Your task to perform on an android device: Is it going to rain tomorrow? Image 0: 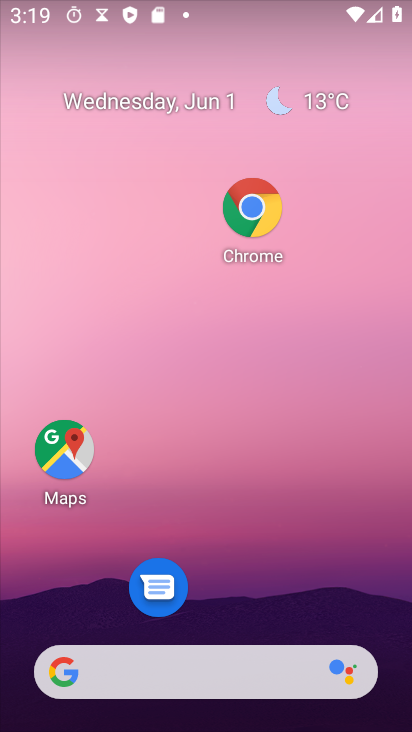
Step 0: drag from (272, 702) to (199, 179)
Your task to perform on an android device: Is it going to rain tomorrow? Image 1: 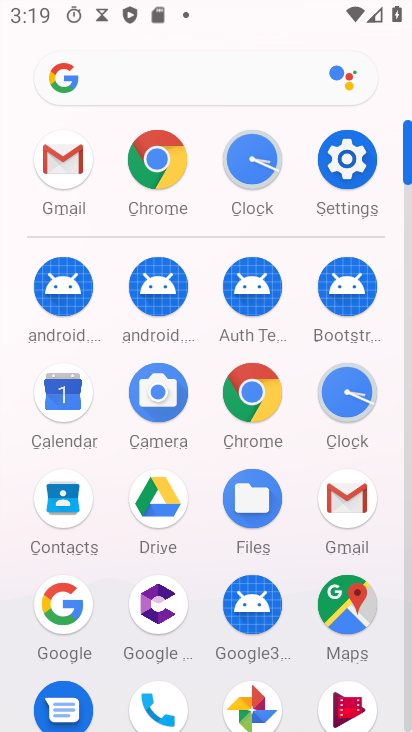
Step 1: press back button
Your task to perform on an android device: Is it going to rain tomorrow? Image 2: 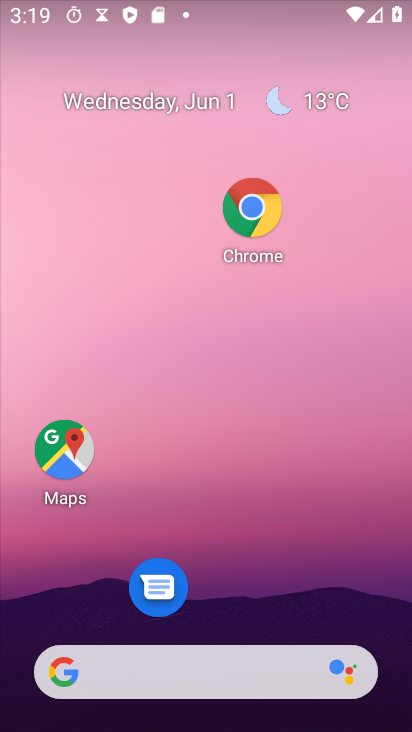
Step 2: drag from (11, 184) to (408, 330)
Your task to perform on an android device: Is it going to rain tomorrow? Image 3: 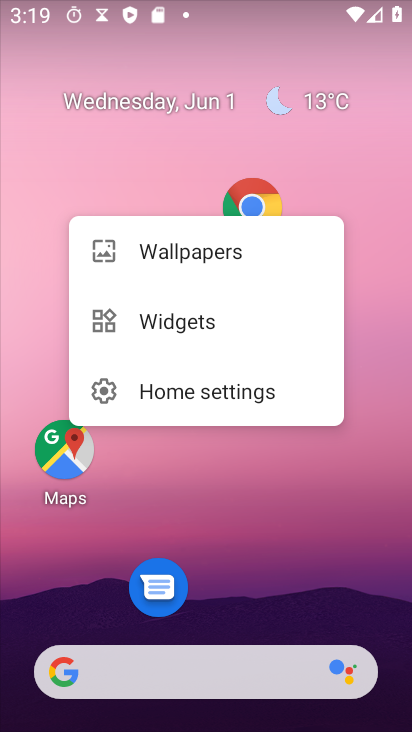
Step 3: click (92, 186)
Your task to perform on an android device: Is it going to rain tomorrow? Image 4: 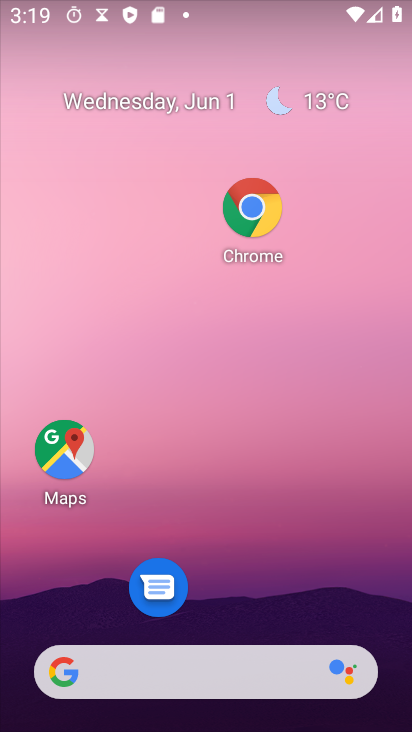
Step 4: drag from (3, 197) to (405, 523)
Your task to perform on an android device: Is it going to rain tomorrow? Image 5: 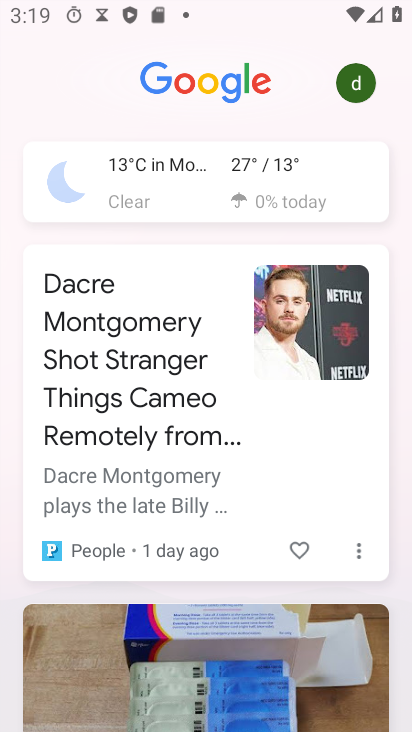
Step 5: click (150, 177)
Your task to perform on an android device: Is it going to rain tomorrow? Image 6: 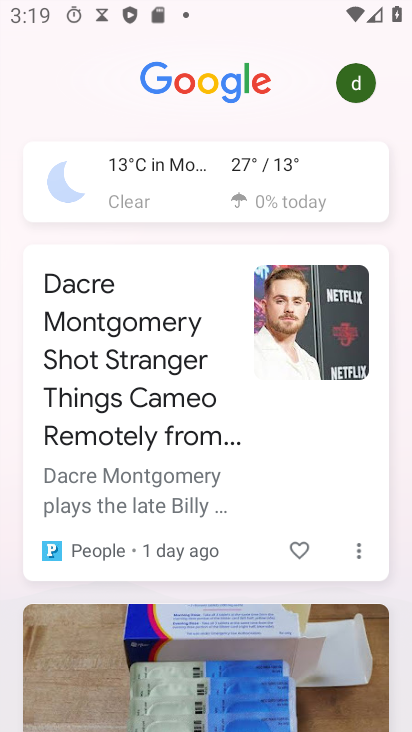
Step 6: click (151, 178)
Your task to perform on an android device: Is it going to rain tomorrow? Image 7: 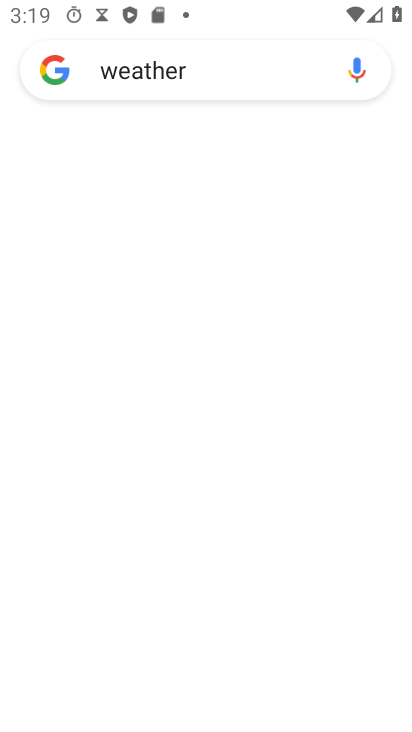
Step 7: click (153, 179)
Your task to perform on an android device: Is it going to rain tomorrow? Image 8: 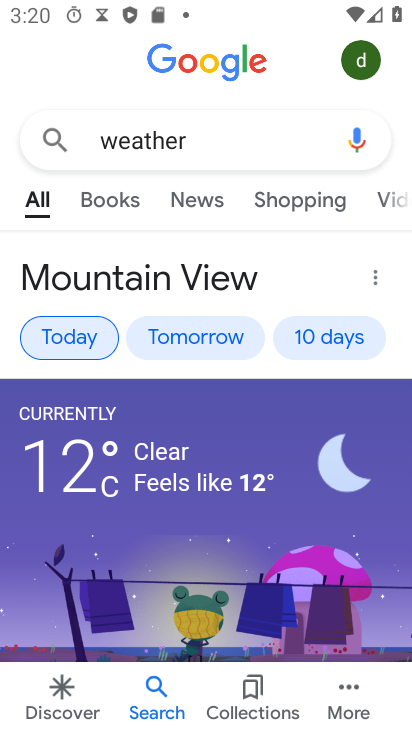
Step 8: task complete